Your task to perform on an android device: change the upload size in google photos Image 0: 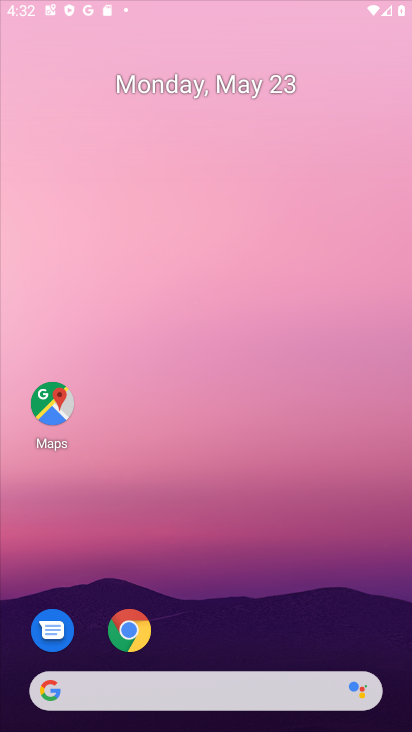
Step 0: press home button
Your task to perform on an android device: change the upload size in google photos Image 1: 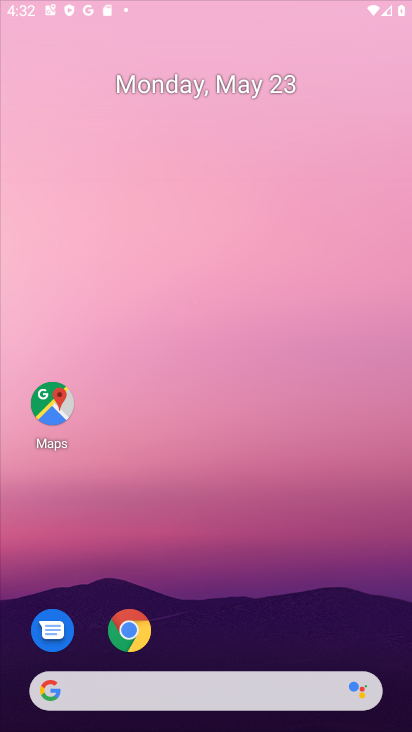
Step 1: click (123, 620)
Your task to perform on an android device: change the upload size in google photos Image 2: 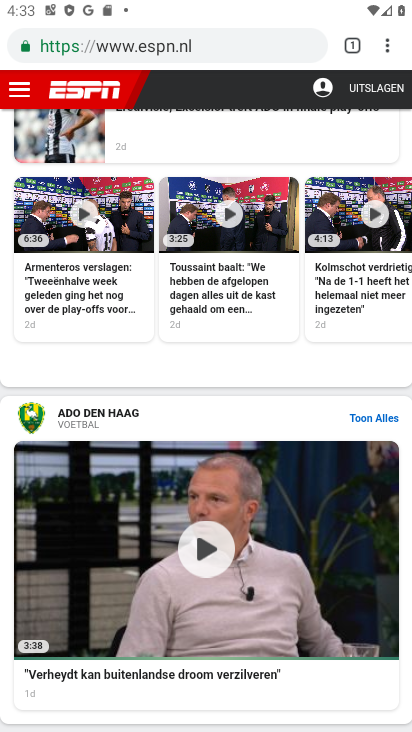
Step 2: press home button
Your task to perform on an android device: change the upload size in google photos Image 3: 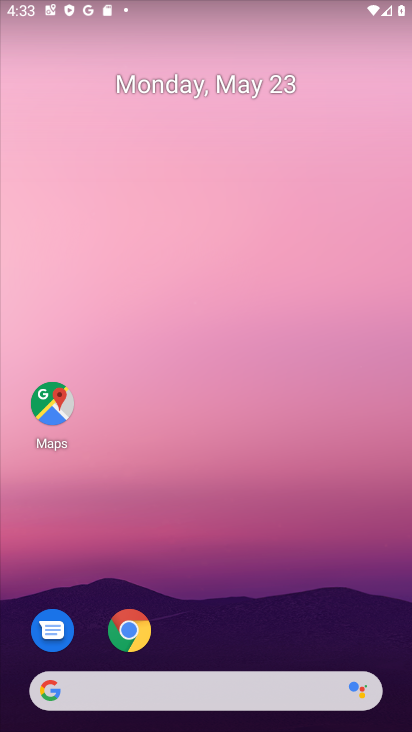
Step 3: drag from (209, 650) to (241, 42)
Your task to perform on an android device: change the upload size in google photos Image 4: 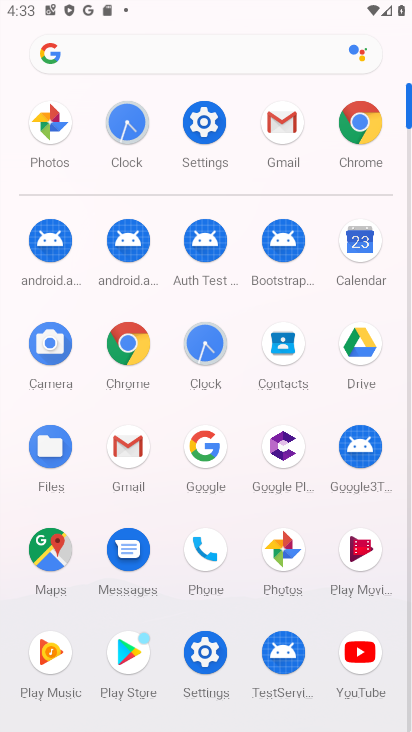
Step 4: click (284, 542)
Your task to perform on an android device: change the upload size in google photos Image 5: 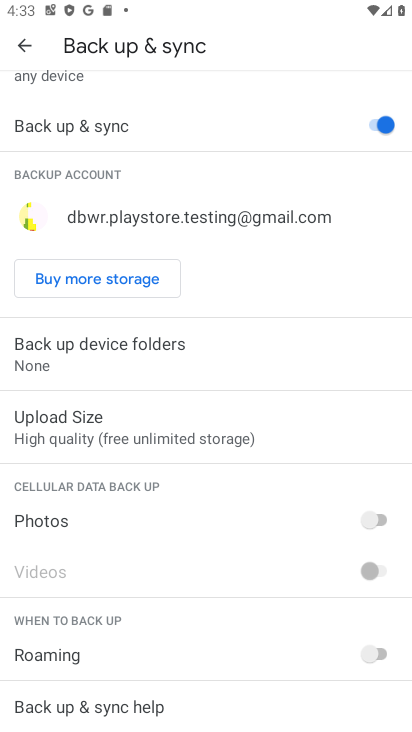
Step 5: drag from (173, 633) to (185, 426)
Your task to perform on an android device: change the upload size in google photos Image 6: 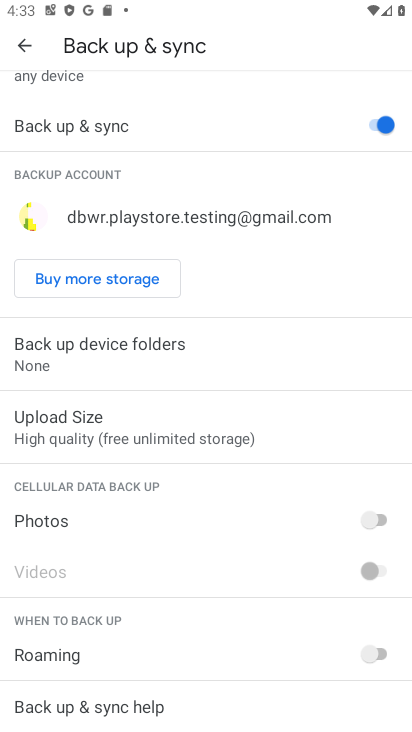
Step 6: click (115, 414)
Your task to perform on an android device: change the upload size in google photos Image 7: 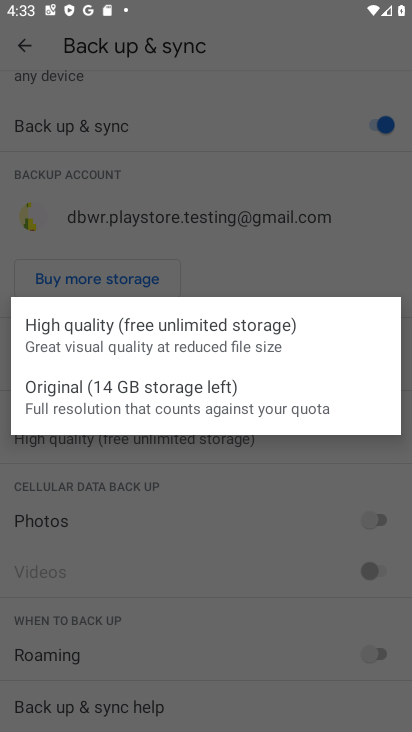
Step 7: click (125, 388)
Your task to perform on an android device: change the upload size in google photos Image 8: 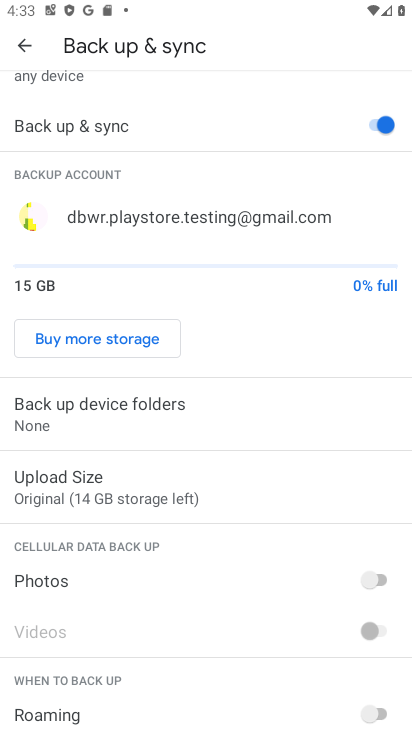
Step 8: task complete